Your task to perform on an android device: Go to Reddit.com Image 0: 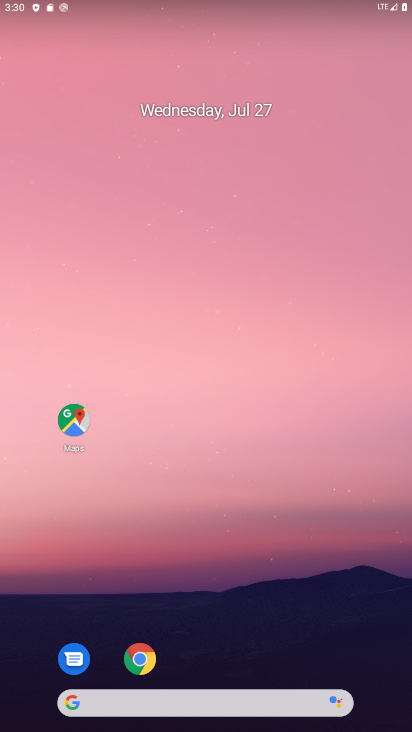
Step 0: click (150, 662)
Your task to perform on an android device: Go to Reddit.com Image 1: 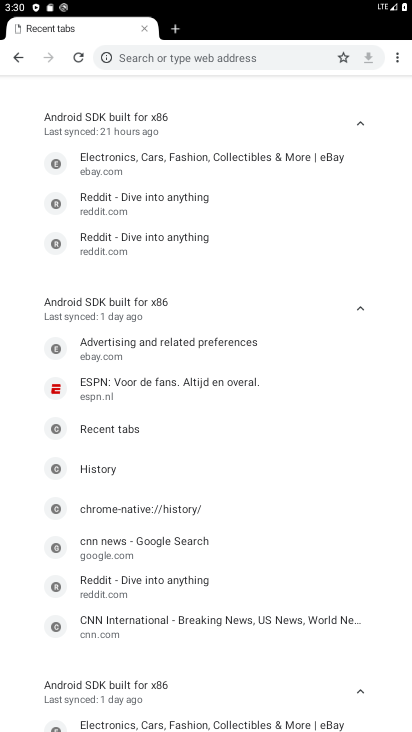
Step 1: click (191, 50)
Your task to perform on an android device: Go to Reddit.com Image 2: 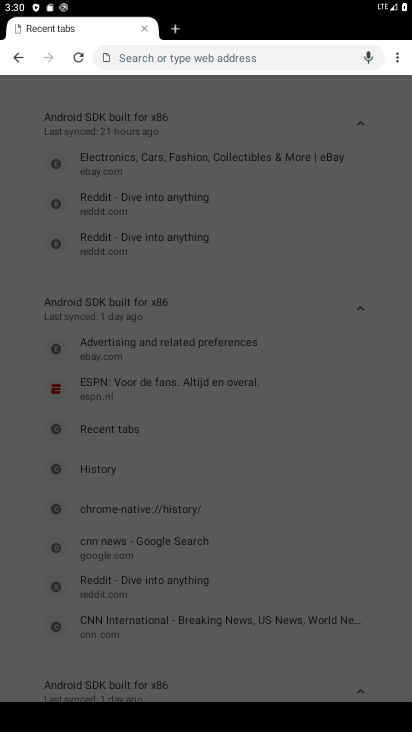
Step 2: type "reddit.com"
Your task to perform on an android device: Go to Reddit.com Image 3: 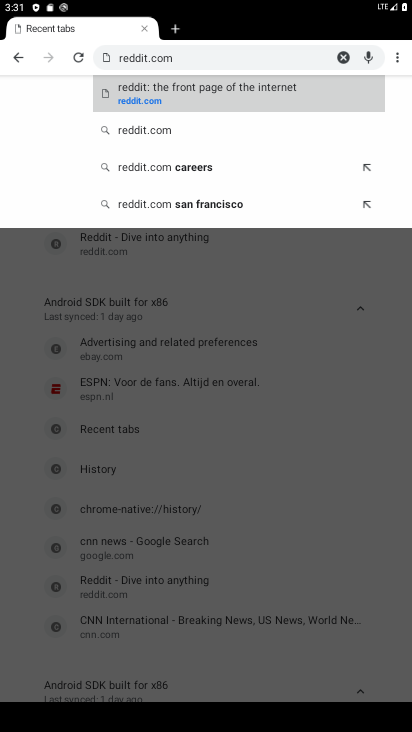
Step 3: click (209, 90)
Your task to perform on an android device: Go to Reddit.com Image 4: 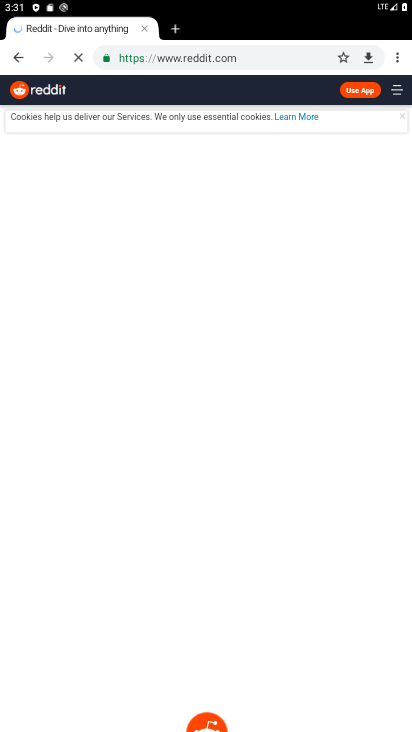
Step 4: task complete